Your task to perform on an android device: clear history in the chrome app Image 0: 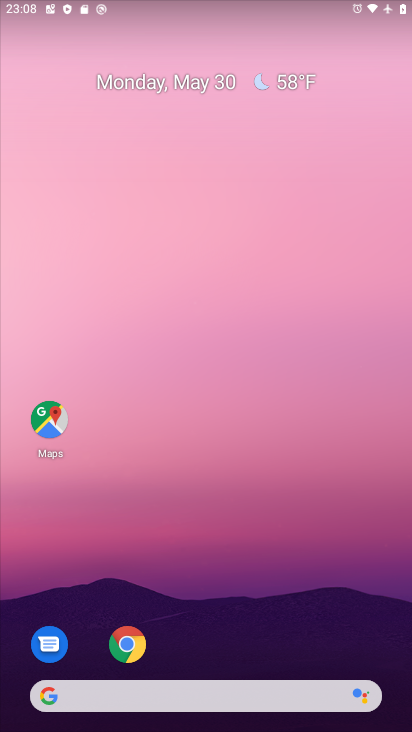
Step 0: click (131, 645)
Your task to perform on an android device: clear history in the chrome app Image 1: 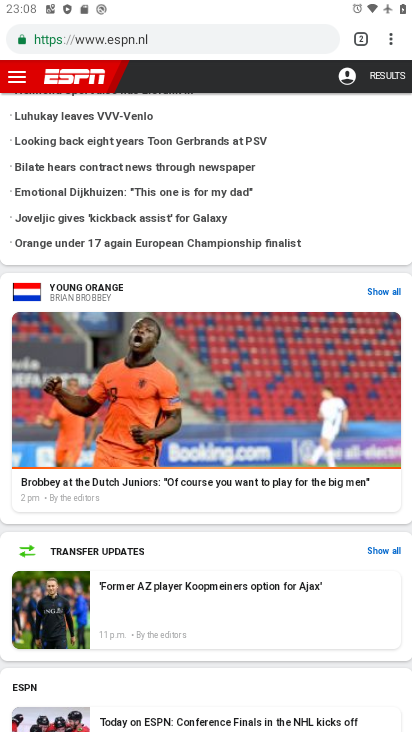
Step 1: click (387, 42)
Your task to perform on an android device: clear history in the chrome app Image 2: 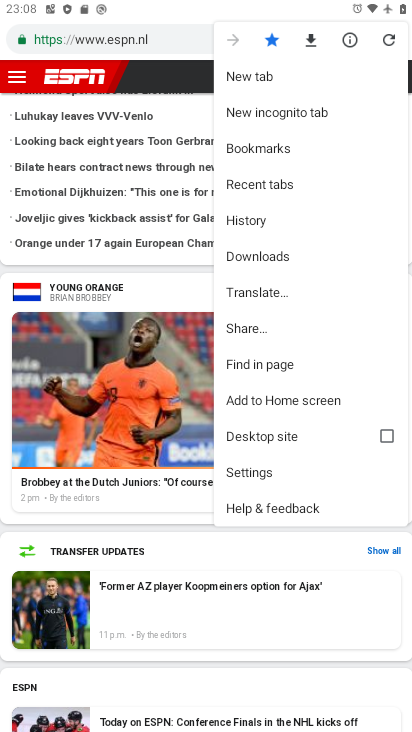
Step 2: click (249, 215)
Your task to perform on an android device: clear history in the chrome app Image 3: 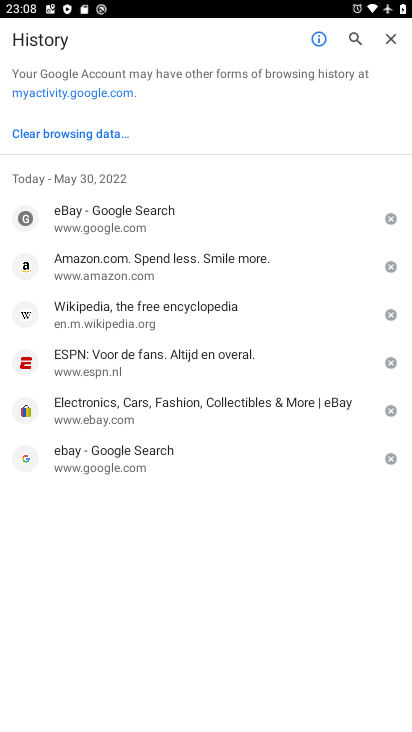
Step 3: click (57, 127)
Your task to perform on an android device: clear history in the chrome app Image 4: 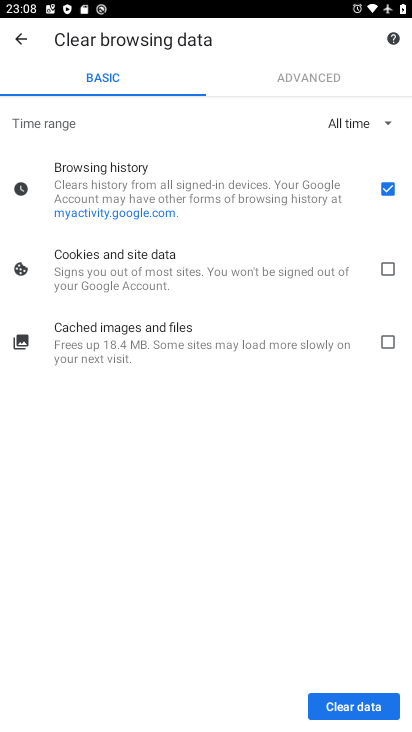
Step 4: click (353, 709)
Your task to perform on an android device: clear history in the chrome app Image 5: 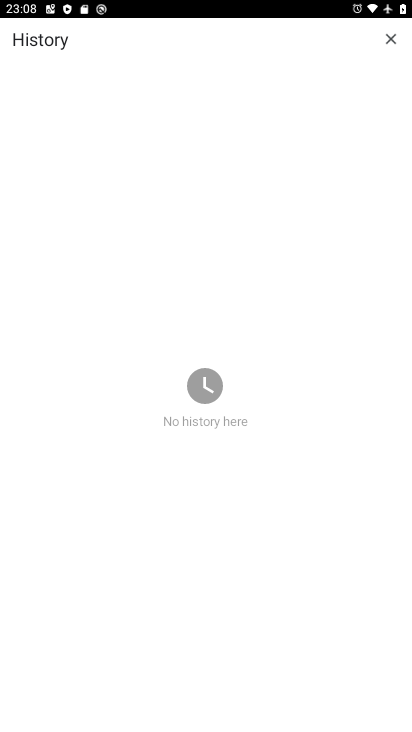
Step 5: task complete